Your task to perform on an android device: clear all cookies in the chrome app Image 0: 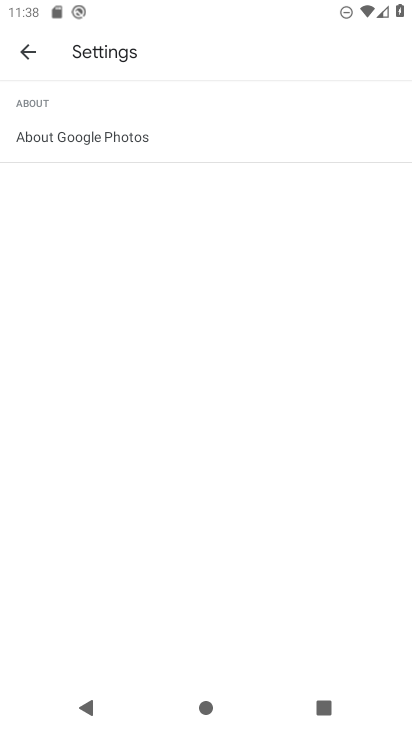
Step 0: press back button
Your task to perform on an android device: clear all cookies in the chrome app Image 1: 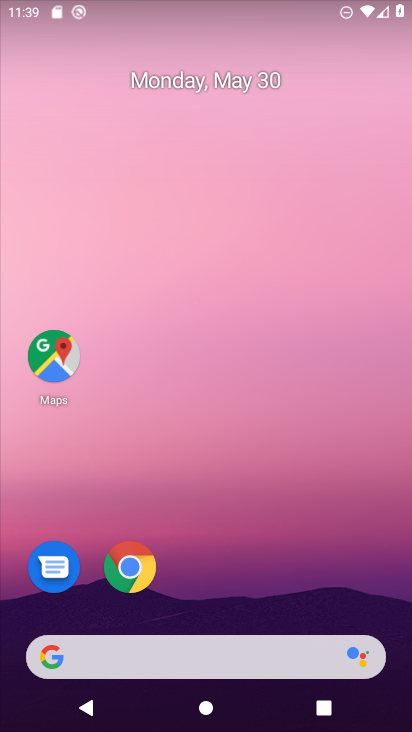
Step 1: drag from (271, 563) to (193, 11)
Your task to perform on an android device: clear all cookies in the chrome app Image 2: 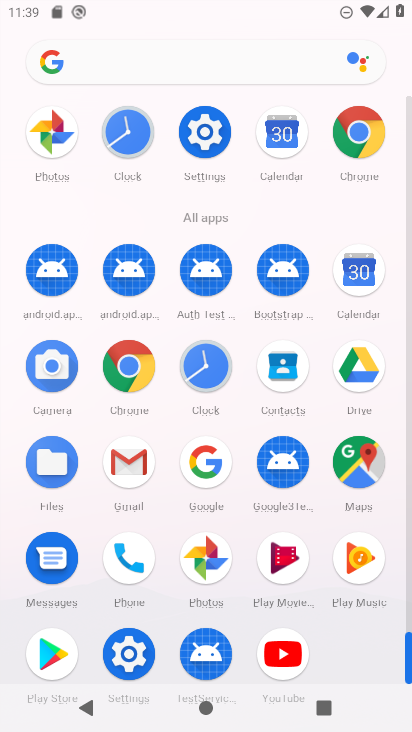
Step 2: drag from (6, 577) to (19, 255)
Your task to perform on an android device: clear all cookies in the chrome app Image 3: 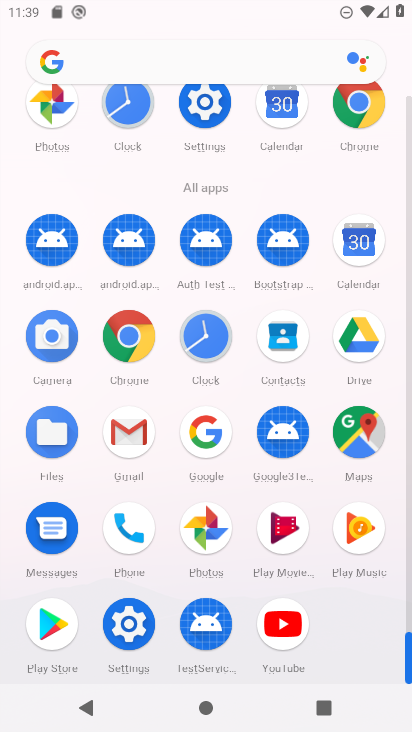
Step 3: click (124, 335)
Your task to perform on an android device: clear all cookies in the chrome app Image 4: 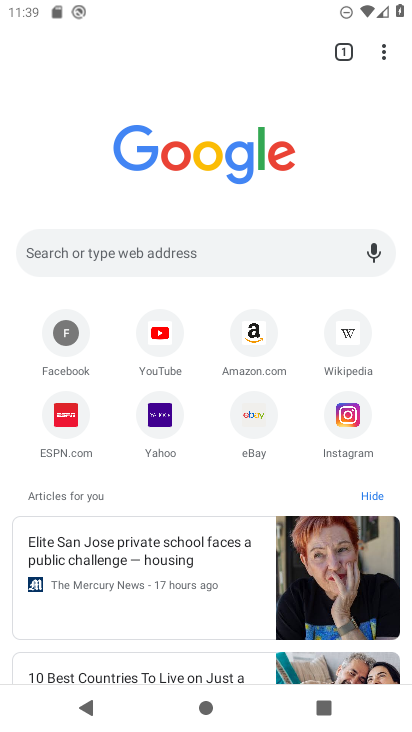
Step 4: drag from (378, 52) to (188, 437)
Your task to perform on an android device: clear all cookies in the chrome app Image 5: 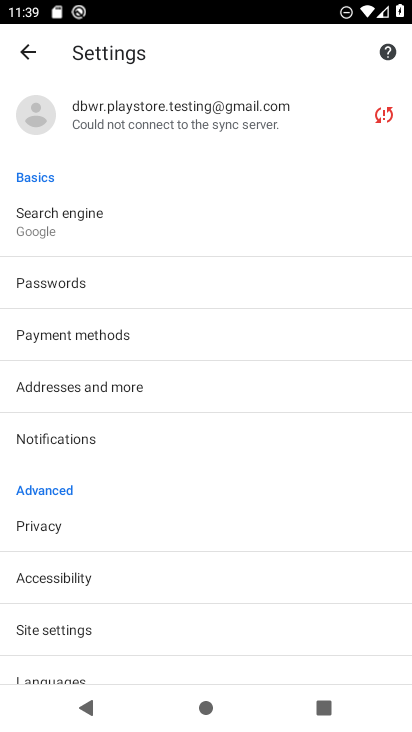
Step 5: drag from (187, 527) to (224, 136)
Your task to perform on an android device: clear all cookies in the chrome app Image 6: 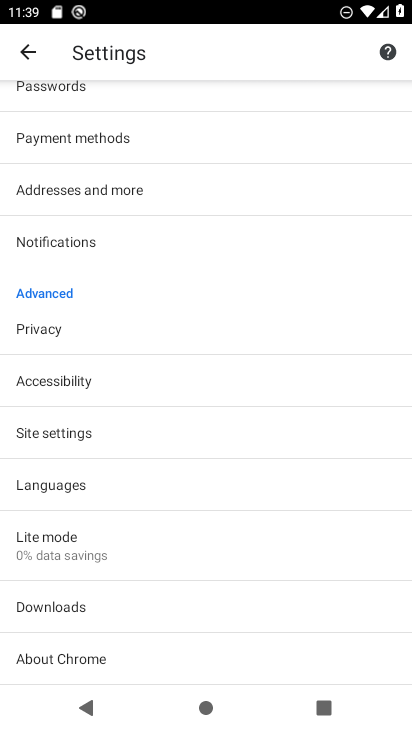
Step 6: drag from (244, 575) to (268, 105)
Your task to perform on an android device: clear all cookies in the chrome app Image 7: 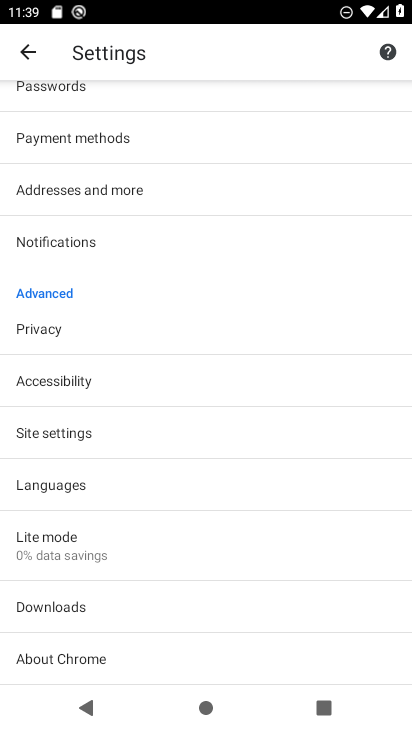
Step 7: drag from (241, 583) to (280, 152)
Your task to perform on an android device: clear all cookies in the chrome app Image 8: 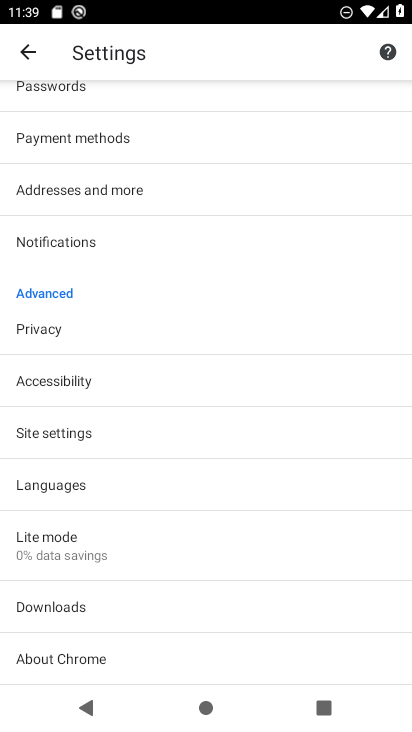
Step 8: click (99, 439)
Your task to perform on an android device: clear all cookies in the chrome app Image 9: 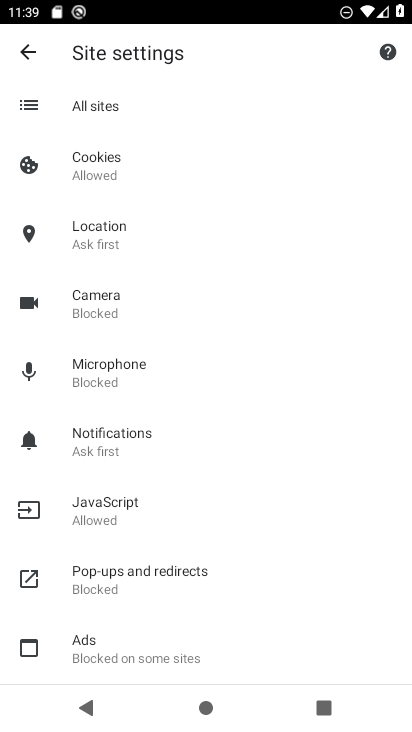
Step 9: click (40, 49)
Your task to perform on an android device: clear all cookies in the chrome app Image 10: 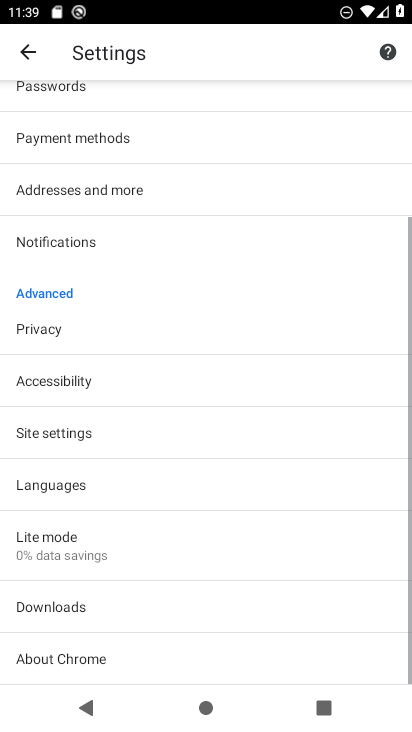
Step 10: drag from (185, 366) to (203, 567)
Your task to perform on an android device: clear all cookies in the chrome app Image 11: 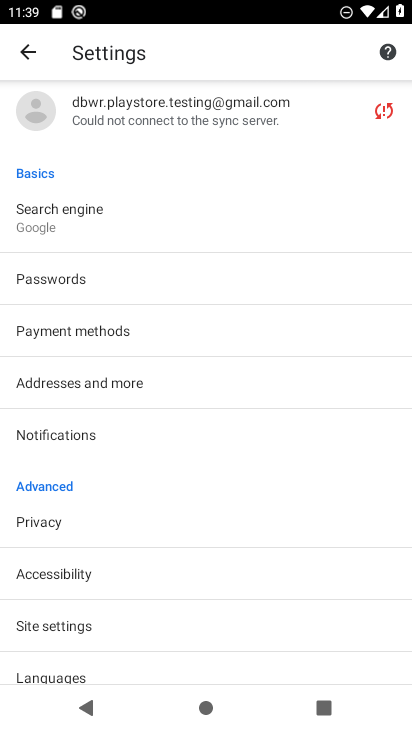
Step 11: drag from (199, 547) to (224, 158)
Your task to perform on an android device: clear all cookies in the chrome app Image 12: 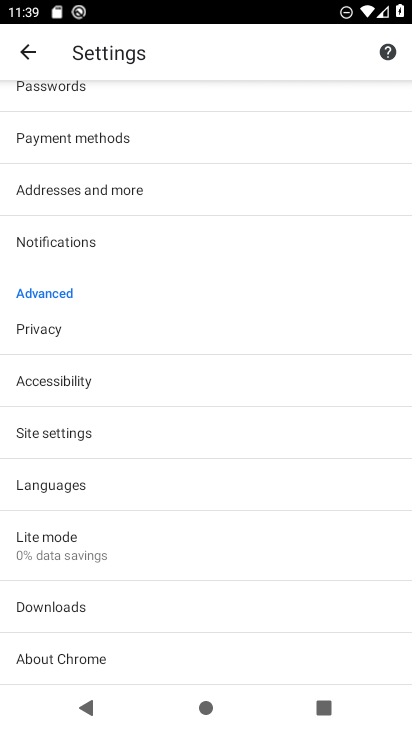
Step 12: click (88, 318)
Your task to perform on an android device: clear all cookies in the chrome app Image 13: 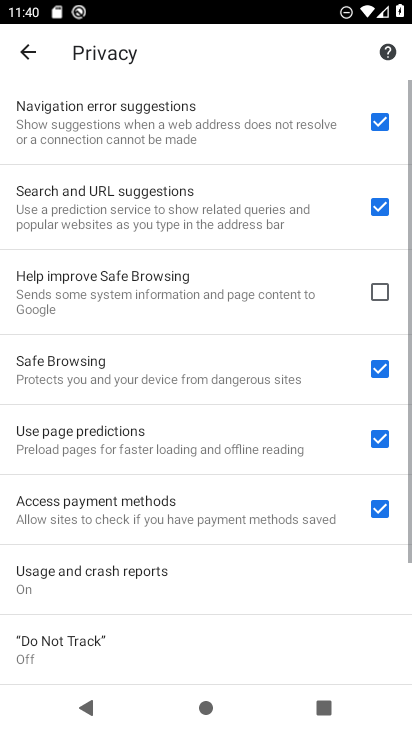
Step 13: drag from (254, 627) to (247, 26)
Your task to perform on an android device: clear all cookies in the chrome app Image 14: 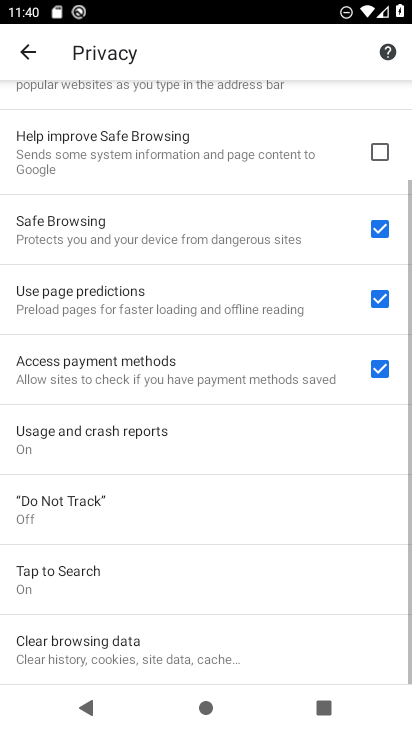
Step 14: click (72, 628)
Your task to perform on an android device: clear all cookies in the chrome app Image 15: 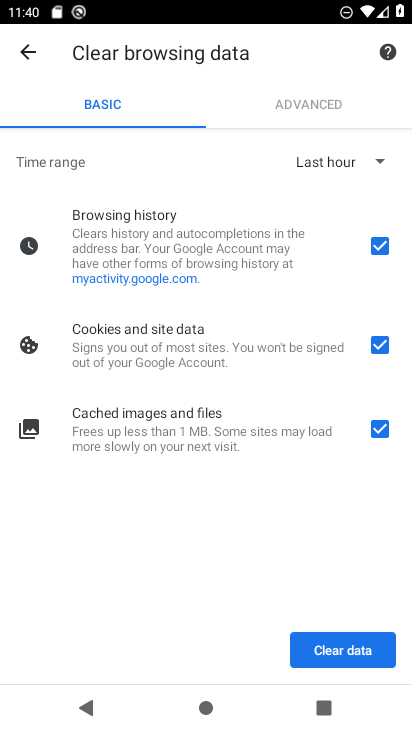
Step 15: click (372, 244)
Your task to perform on an android device: clear all cookies in the chrome app Image 16: 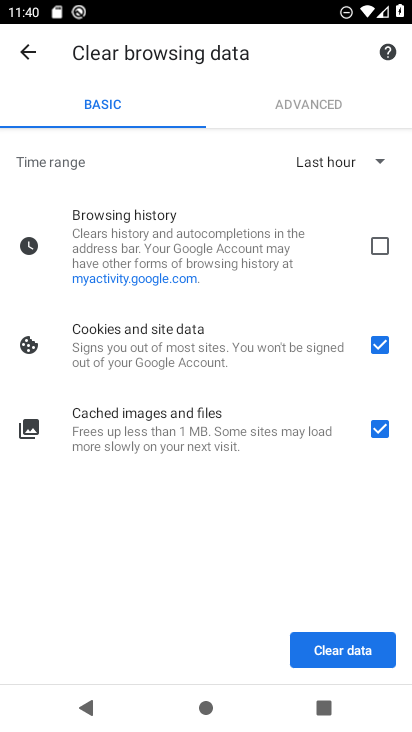
Step 16: click (368, 434)
Your task to perform on an android device: clear all cookies in the chrome app Image 17: 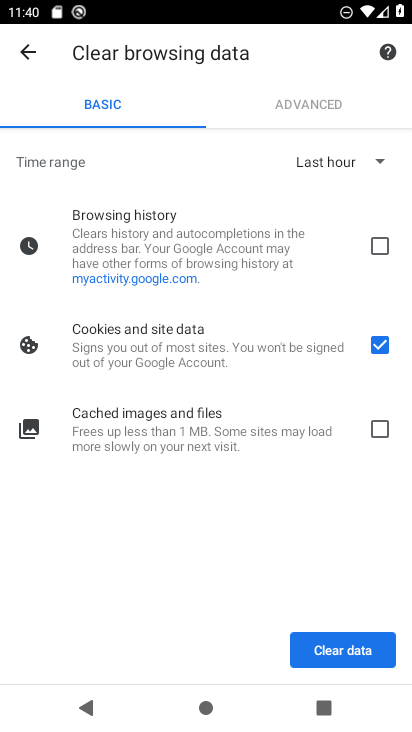
Step 17: click (329, 662)
Your task to perform on an android device: clear all cookies in the chrome app Image 18: 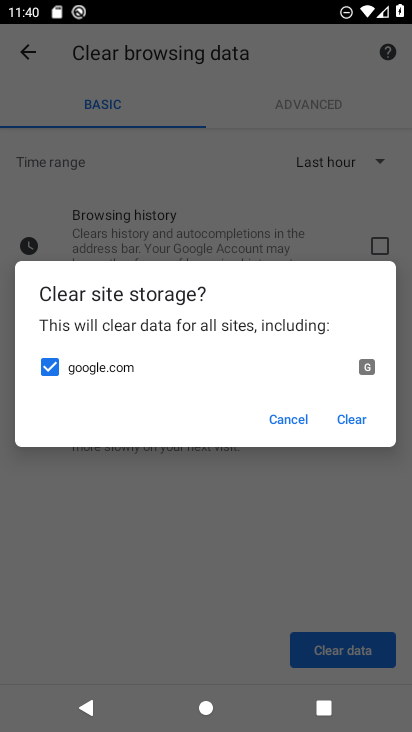
Step 18: click (348, 414)
Your task to perform on an android device: clear all cookies in the chrome app Image 19: 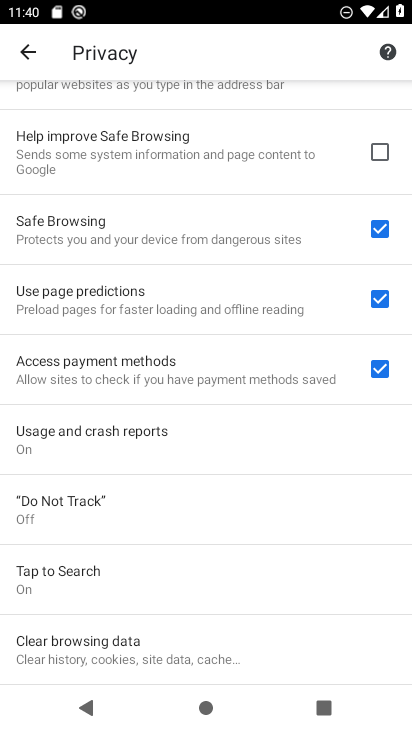
Step 19: task complete